Your task to perform on an android device: Open Google Maps Image 0: 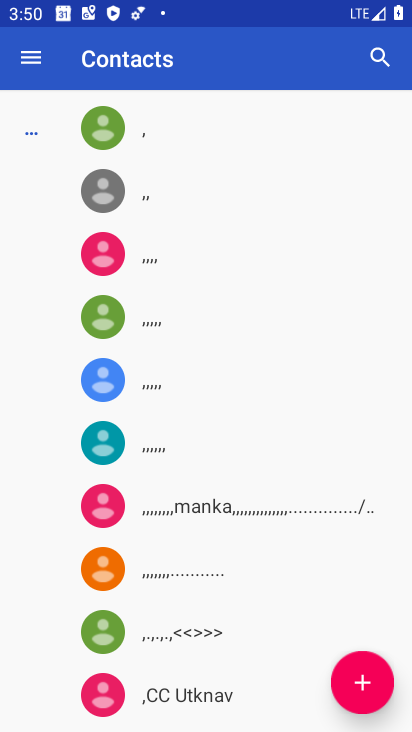
Step 0: press home button
Your task to perform on an android device: Open Google Maps Image 1: 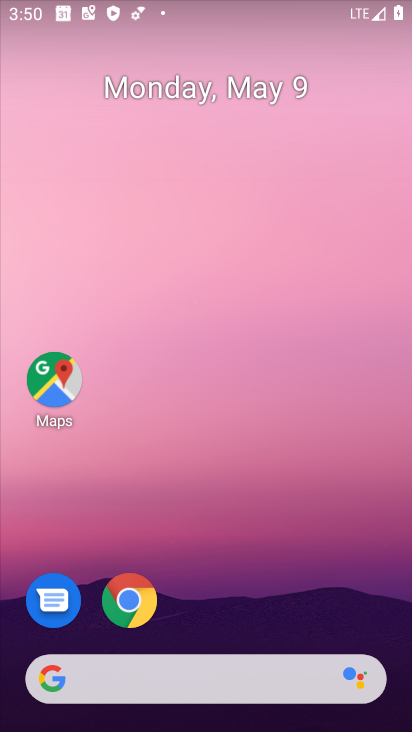
Step 1: drag from (211, 649) to (302, 64)
Your task to perform on an android device: Open Google Maps Image 2: 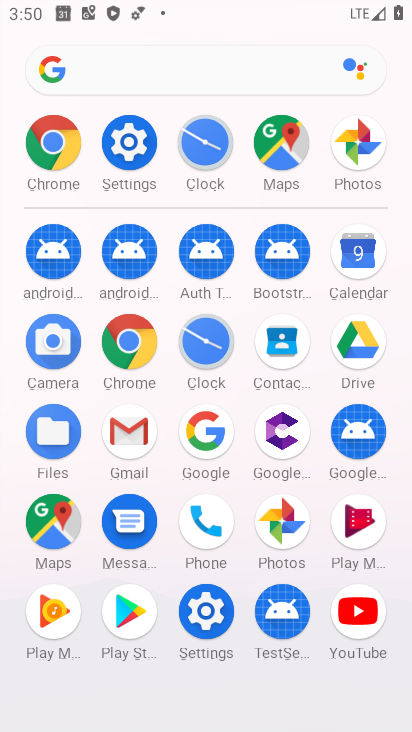
Step 2: click (57, 507)
Your task to perform on an android device: Open Google Maps Image 3: 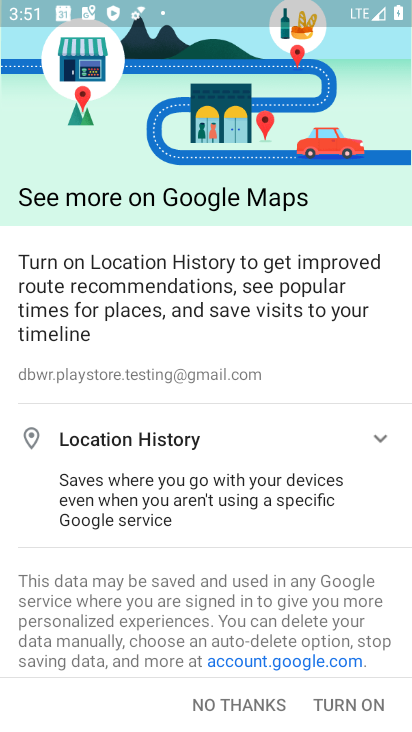
Step 3: click (255, 704)
Your task to perform on an android device: Open Google Maps Image 4: 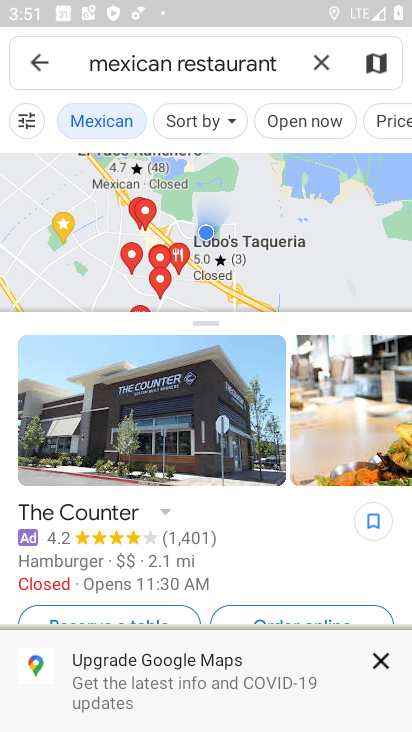
Step 4: task complete